Your task to perform on an android device: turn vacation reply on in the gmail app Image 0: 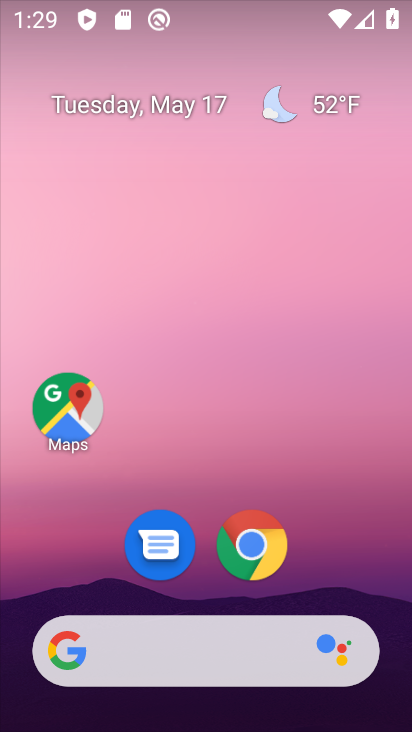
Step 0: drag from (358, 558) to (375, 182)
Your task to perform on an android device: turn vacation reply on in the gmail app Image 1: 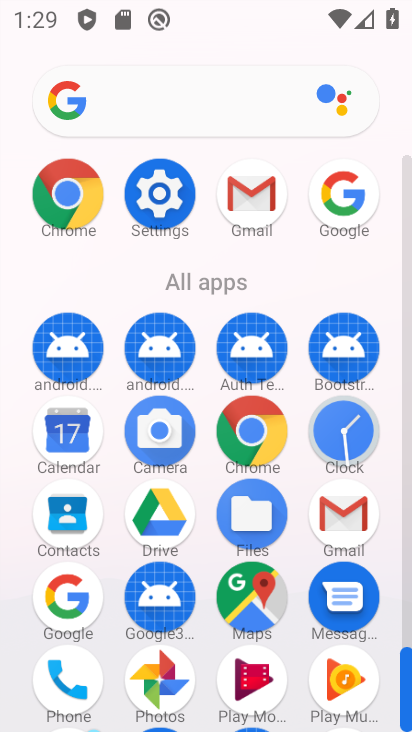
Step 1: click (364, 505)
Your task to perform on an android device: turn vacation reply on in the gmail app Image 2: 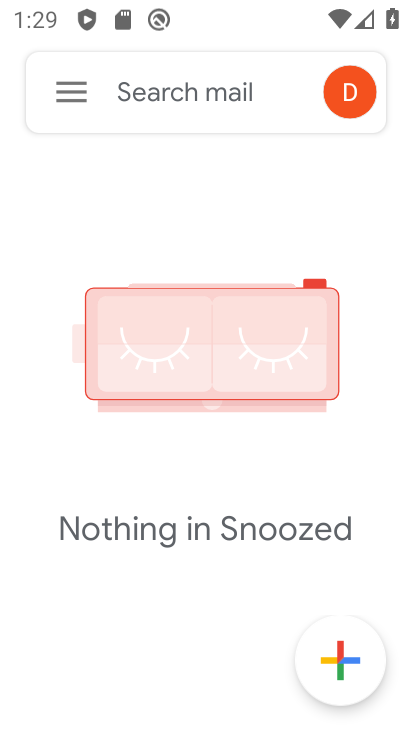
Step 2: click (85, 97)
Your task to perform on an android device: turn vacation reply on in the gmail app Image 3: 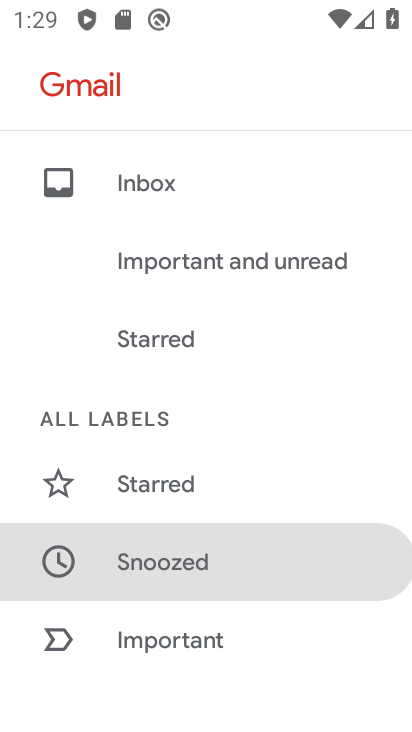
Step 3: drag from (285, 449) to (298, 377)
Your task to perform on an android device: turn vacation reply on in the gmail app Image 4: 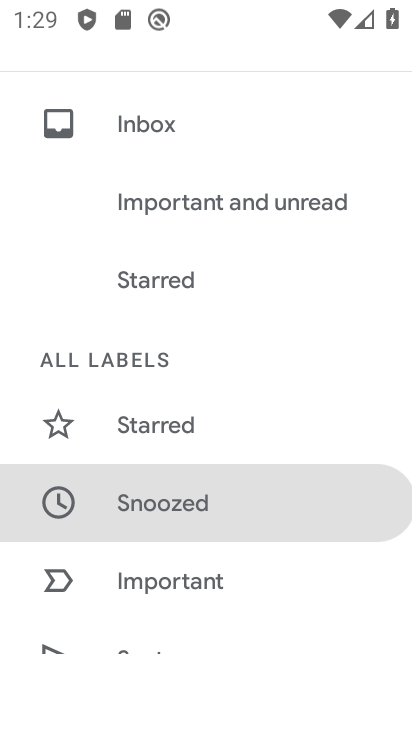
Step 4: drag from (300, 469) to (309, 371)
Your task to perform on an android device: turn vacation reply on in the gmail app Image 5: 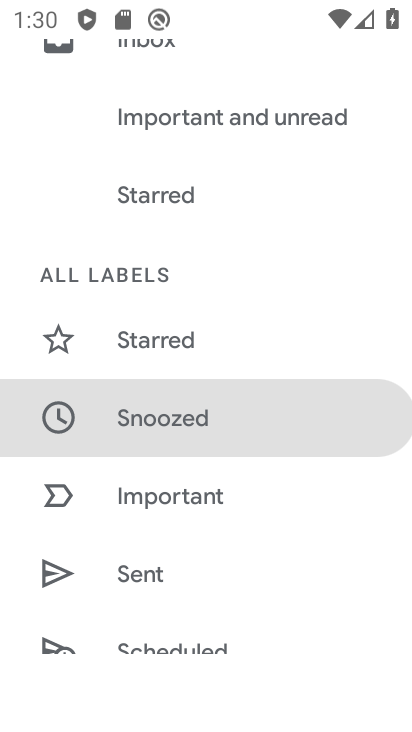
Step 5: drag from (306, 495) to (313, 393)
Your task to perform on an android device: turn vacation reply on in the gmail app Image 6: 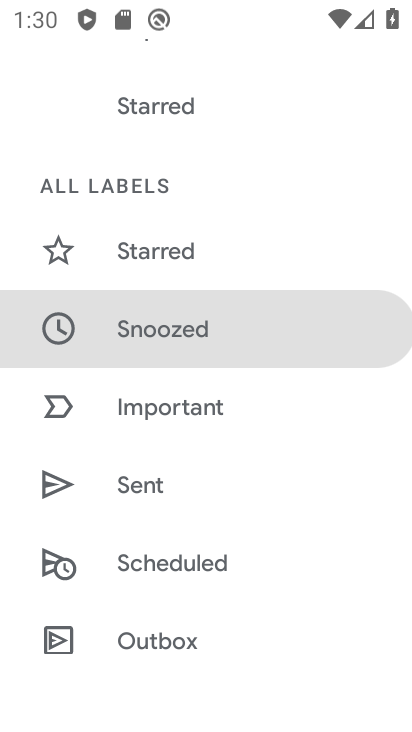
Step 6: drag from (317, 546) to (324, 448)
Your task to perform on an android device: turn vacation reply on in the gmail app Image 7: 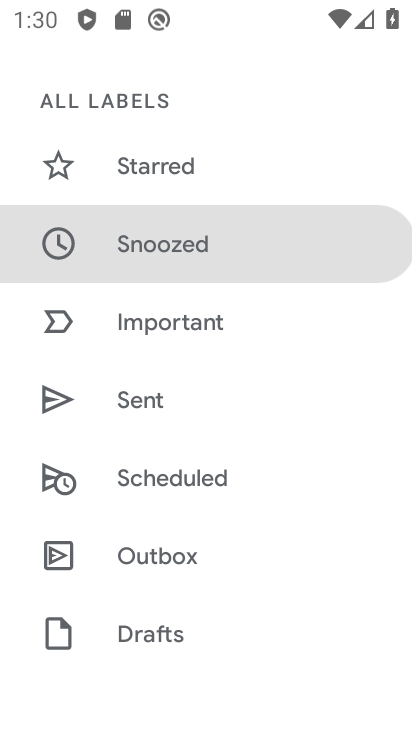
Step 7: drag from (320, 575) to (323, 476)
Your task to perform on an android device: turn vacation reply on in the gmail app Image 8: 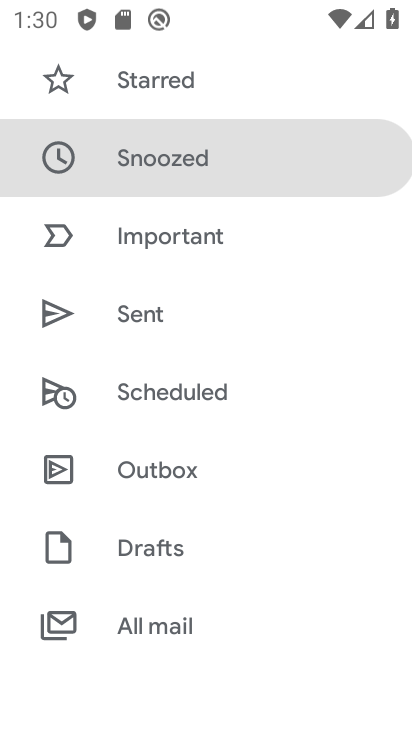
Step 8: drag from (308, 567) to (320, 482)
Your task to perform on an android device: turn vacation reply on in the gmail app Image 9: 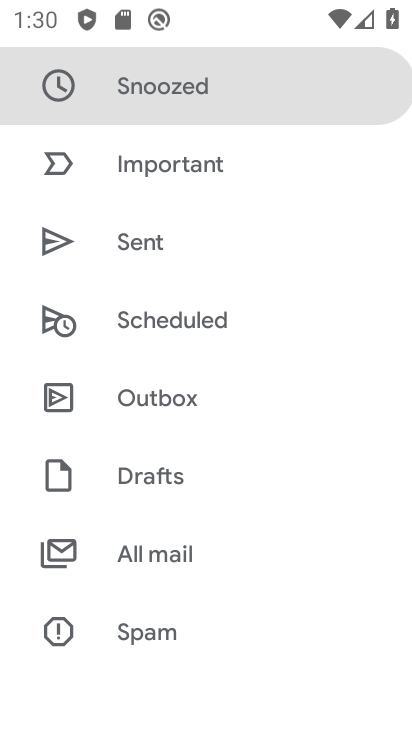
Step 9: drag from (311, 553) to (314, 505)
Your task to perform on an android device: turn vacation reply on in the gmail app Image 10: 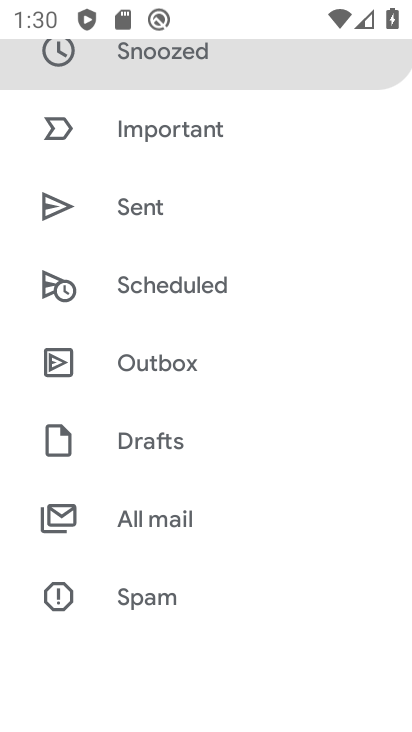
Step 10: drag from (305, 555) to (313, 510)
Your task to perform on an android device: turn vacation reply on in the gmail app Image 11: 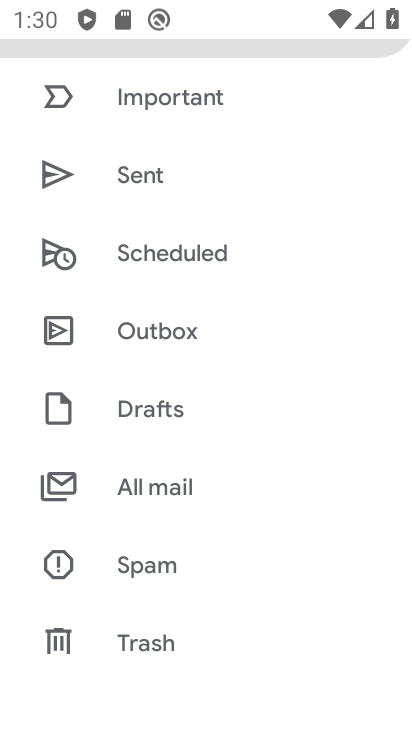
Step 11: drag from (306, 565) to (306, 469)
Your task to perform on an android device: turn vacation reply on in the gmail app Image 12: 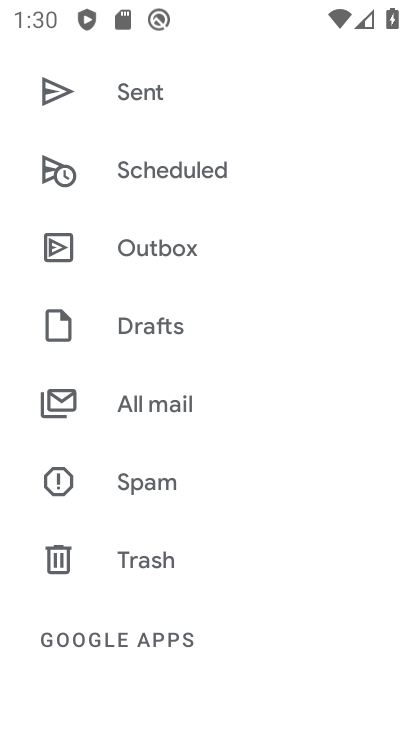
Step 12: drag from (288, 557) to (298, 507)
Your task to perform on an android device: turn vacation reply on in the gmail app Image 13: 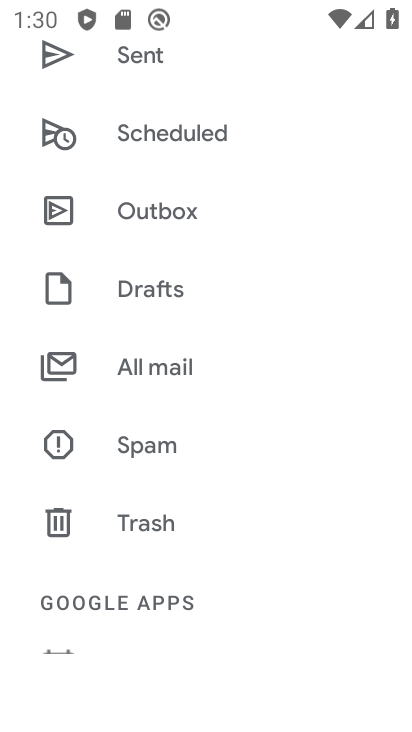
Step 13: drag from (282, 552) to (288, 451)
Your task to perform on an android device: turn vacation reply on in the gmail app Image 14: 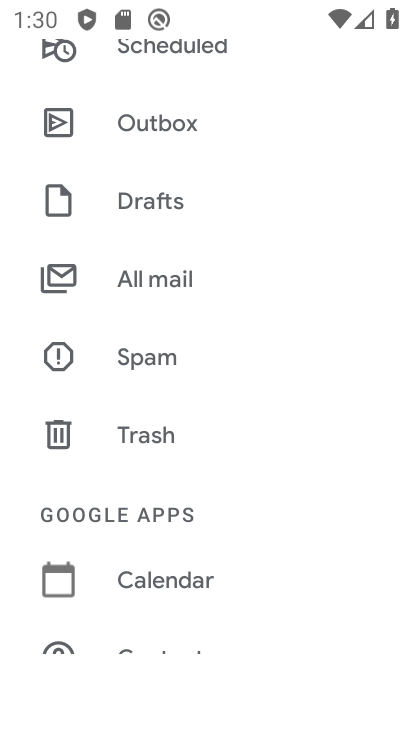
Step 14: drag from (287, 574) to (294, 453)
Your task to perform on an android device: turn vacation reply on in the gmail app Image 15: 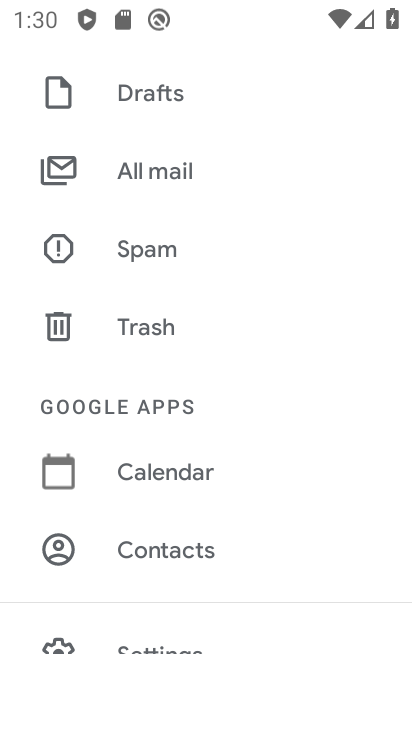
Step 15: drag from (280, 584) to (276, 434)
Your task to perform on an android device: turn vacation reply on in the gmail app Image 16: 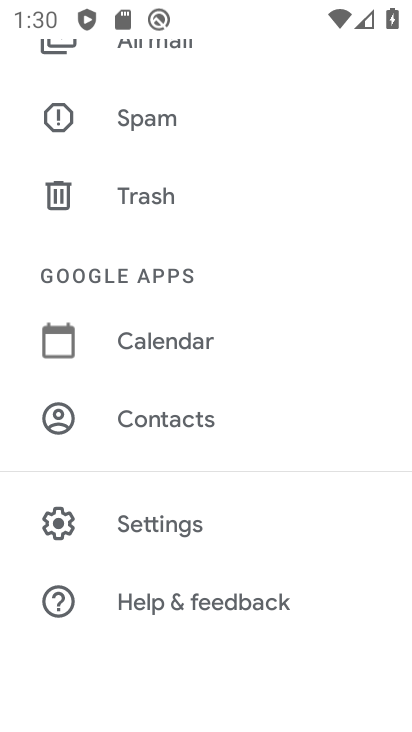
Step 16: click (196, 528)
Your task to perform on an android device: turn vacation reply on in the gmail app Image 17: 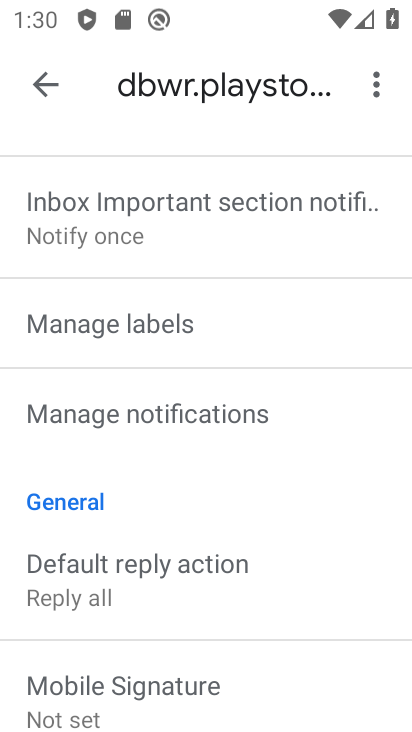
Step 17: drag from (309, 616) to (304, 519)
Your task to perform on an android device: turn vacation reply on in the gmail app Image 18: 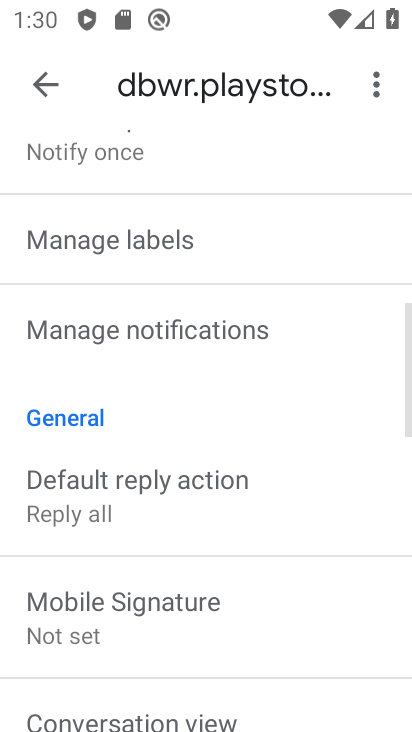
Step 18: drag from (293, 641) to (293, 533)
Your task to perform on an android device: turn vacation reply on in the gmail app Image 19: 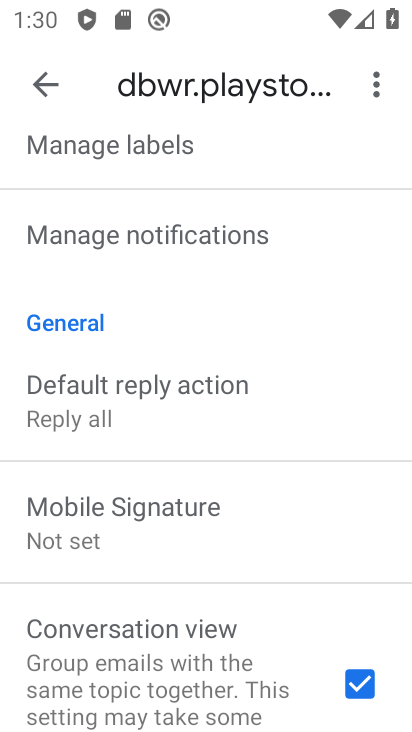
Step 19: drag from (273, 638) to (275, 522)
Your task to perform on an android device: turn vacation reply on in the gmail app Image 20: 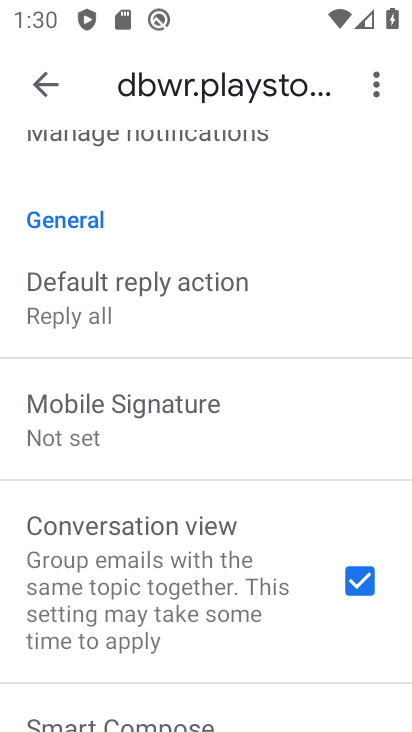
Step 20: drag from (276, 684) to (283, 553)
Your task to perform on an android device: turn vacation reply on in the gmail app Image 21: 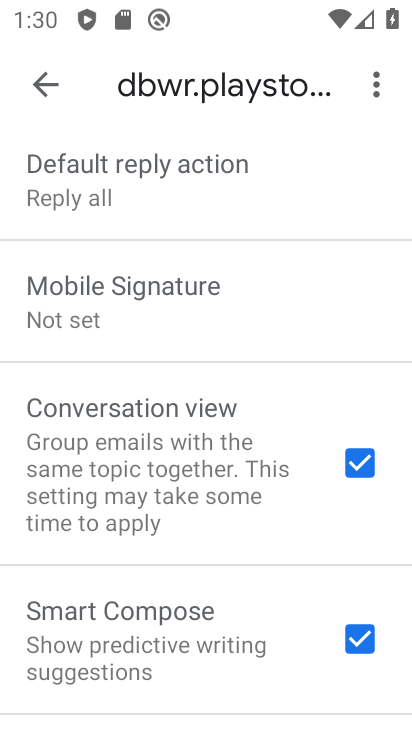
Step 21: drag from (278, 703) to (277, 571)
Your task to perform on an android device: turn vacation reply on in the gmail app Image 22: 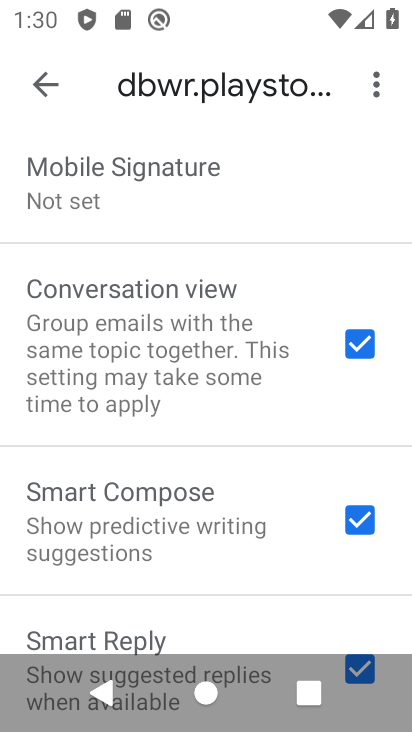
Step 22: drag from (265, 624) to (272, 512)
Your task to perform on an android device: turn vacation reply on in the gmail app Image 23: 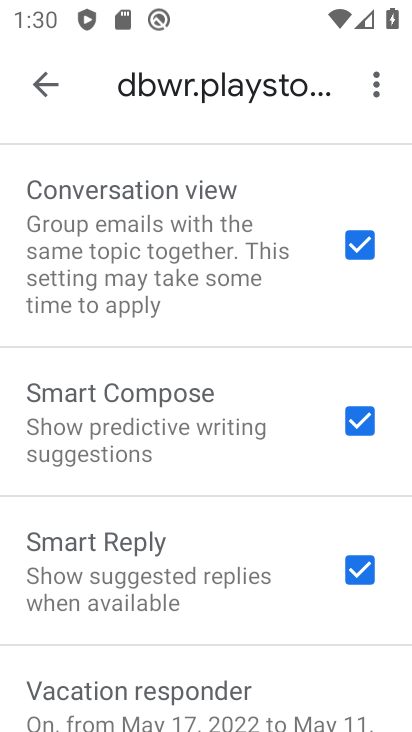
Step 23: drag from (262, 630) to (262, 513)
Your task to perform on an android device: turn vacation reply on in the gmail app Image 24: 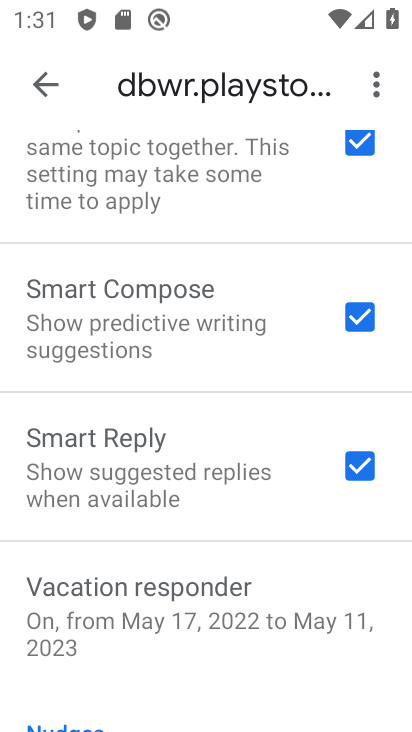
Step 24: click (214, 619)
Your task to perform on an android device: turn vacation reply on in the gmail app Image 25: 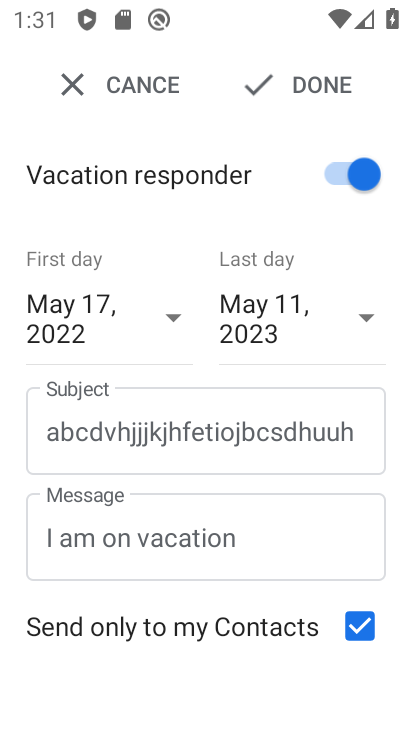
Step 25: task complete